Your task to perform on an android device: Open Google Chrome and click the shortcut for Amazon.com Image 0: 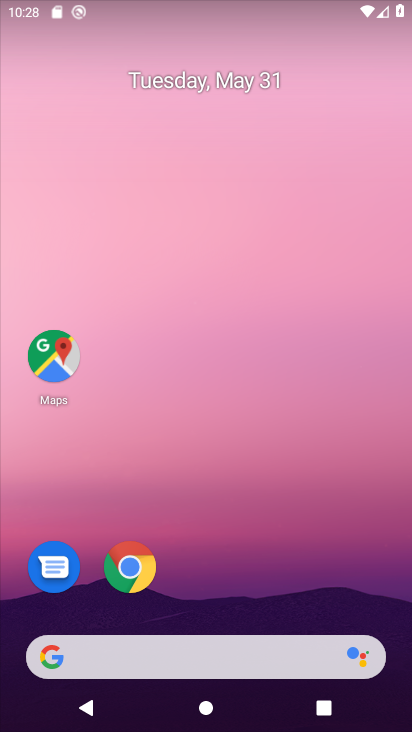
Step 0: click (130, 573)
Your task to perform on an android device: Open Google Chrome and click the shortcut for Amazon.com Image 1: 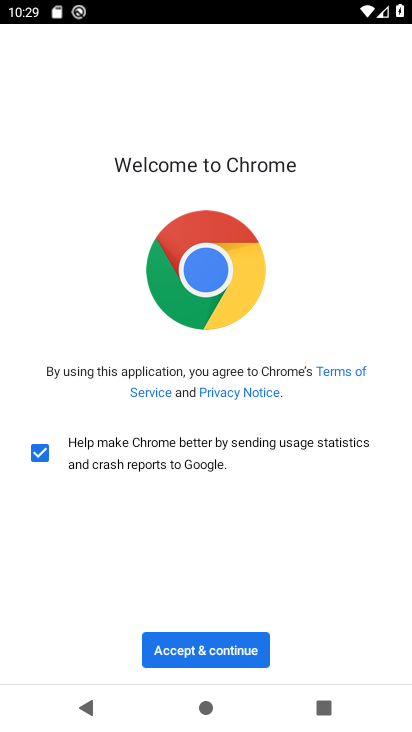
Step 1: task complete